Your task to perform on an android device: see creations saved in the google photos Image 0: 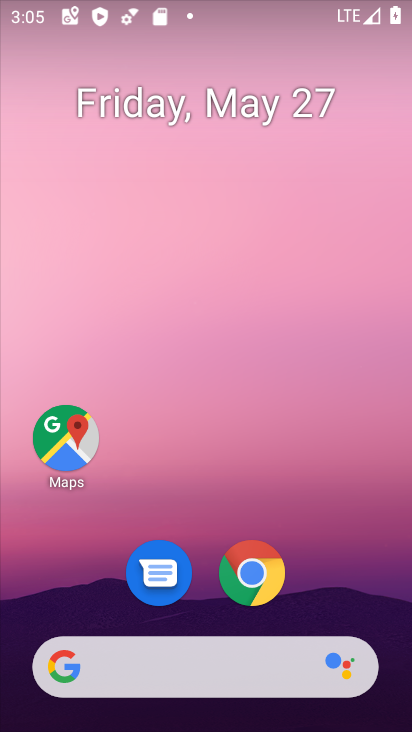
Step 0: drag from (290, 488) to (264, 30)
Your task to perform on an android device: see creations saved in the google photos Image 1: 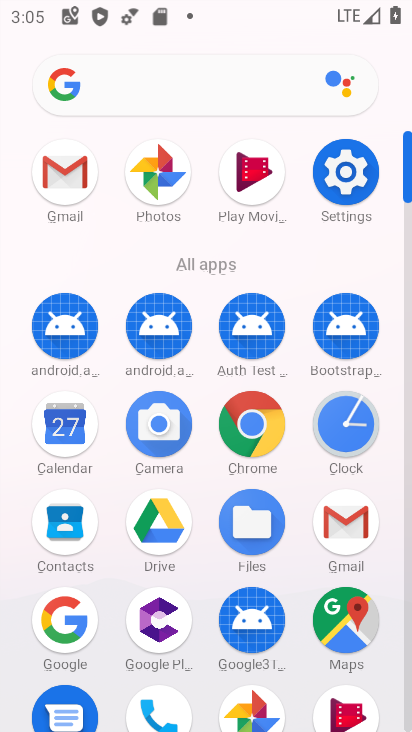
Step 1: drag from (301, 462) to (323, 110)
Your task to perform on an android device: see creations saved in the google photos Image 2: 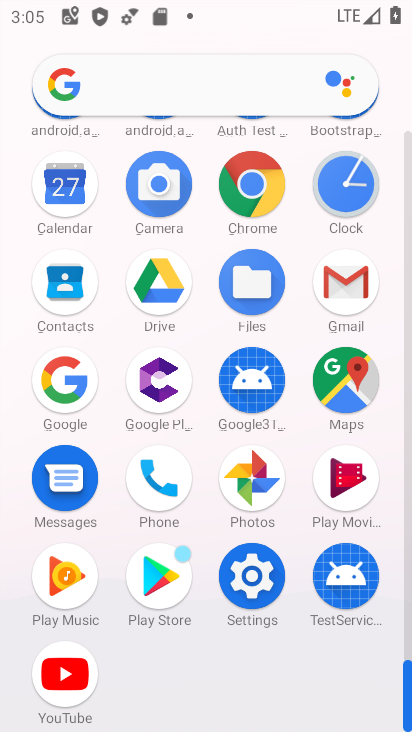
Step 2: click (262, 466)
Your task to perform on an android device: see creations saved in the google photos Image 3: 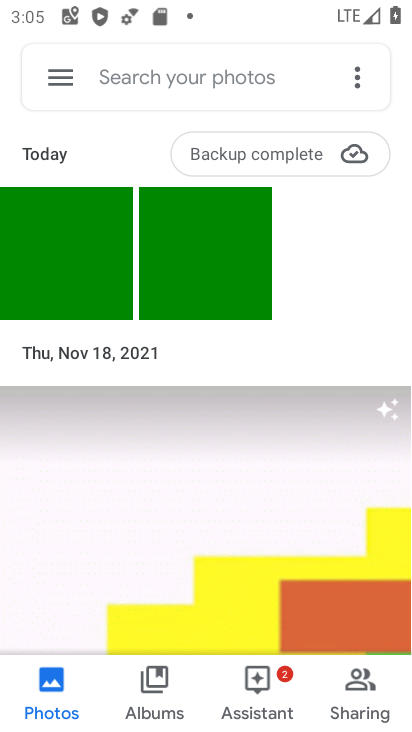
Step 3: click (223, 66)
Your task to perform on an android device: see creations saved in the google photos Image 4: 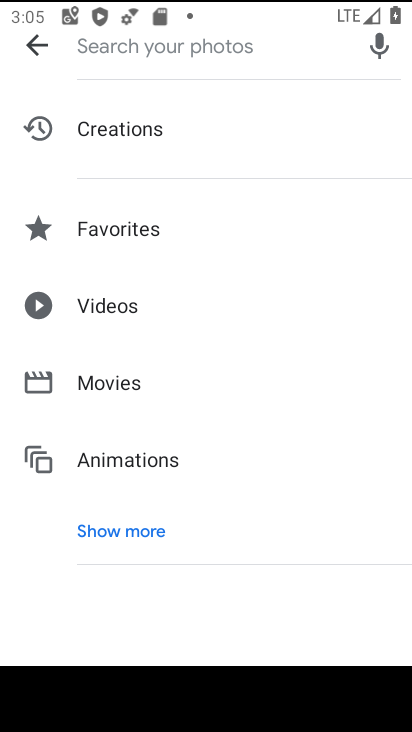
Step 4: click (143, 125)
Your task to perform on an android device: see creations saved in the google photos Image 5: 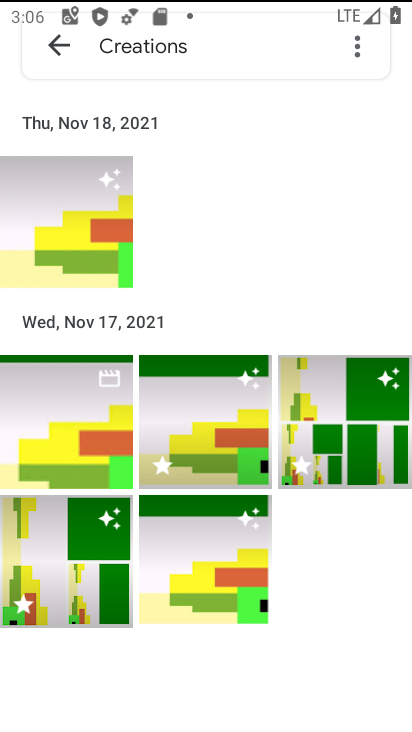
Step 5: task complete